Your task to perform on an android device: Open accessibility settings Image 0: 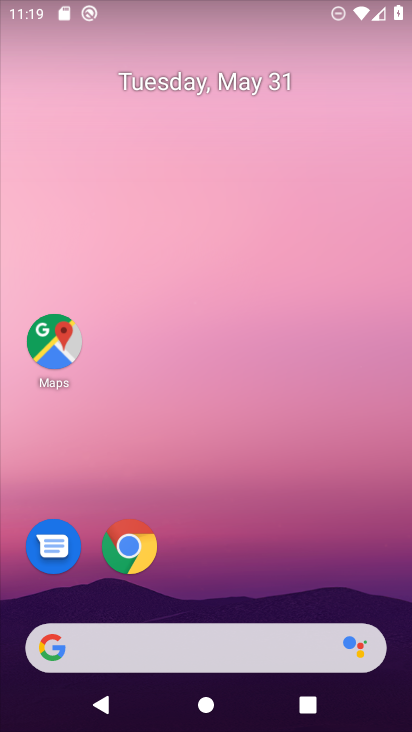
Step 0: drag from (252, 638) to (277, 67)
Your task to perform on an android device: Open accessibility settings Image 1: 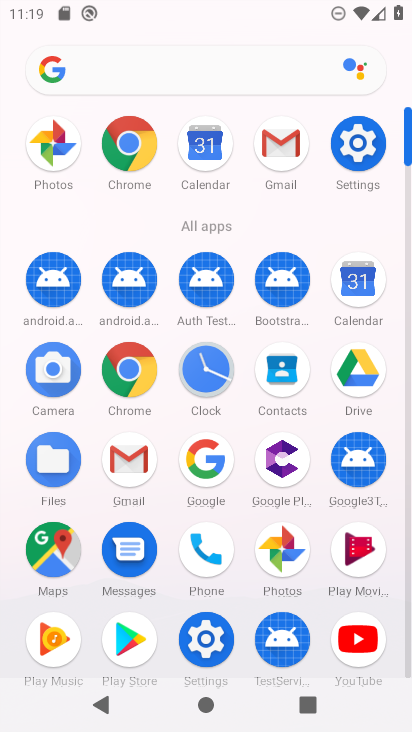
Step 1: click (338, 142)
Your task to perform on an android device: Open accessibility settings Image 2: 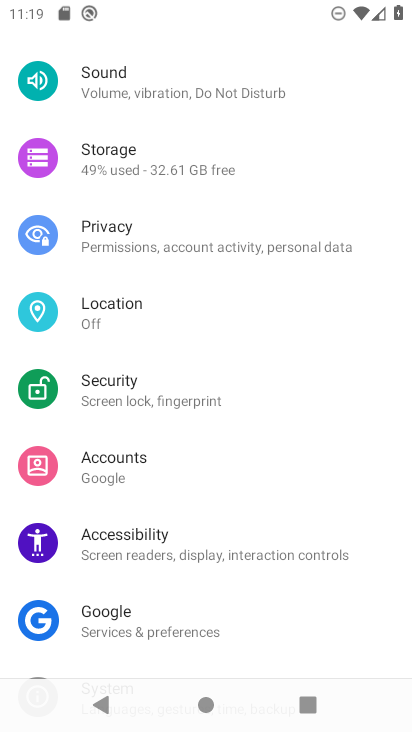
Step 2: click (162, 544)
Your task to perform on an android device: Open accessibility settings Image 3: 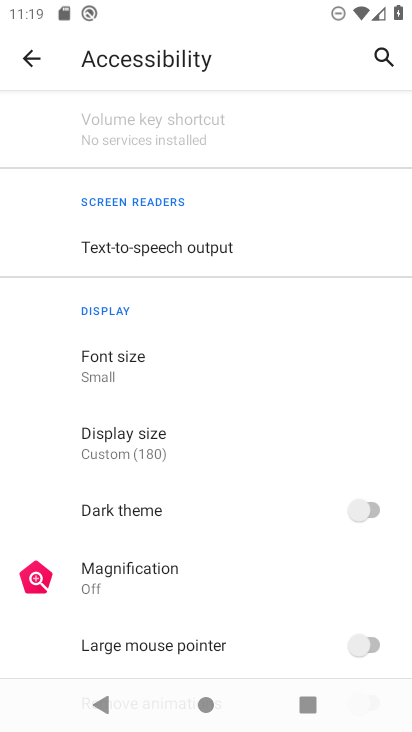
Step 3: task complete